Your task to perform on an android device: check the backup settings in the google photos Image 0: 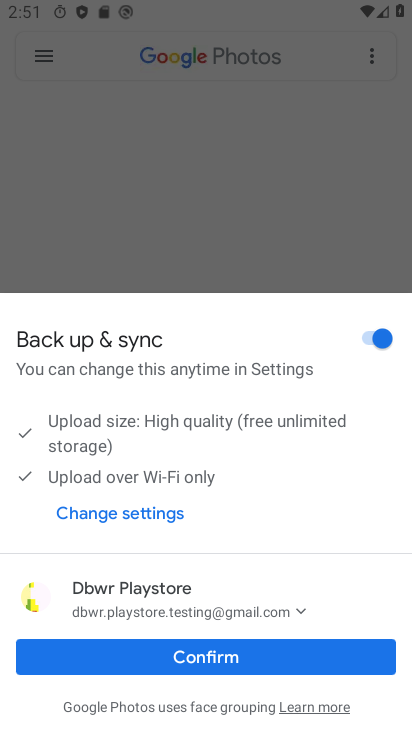
Step 0: click (207, 663)
Your task to perform on an android device: check the backup settings in the google photos Image 1: 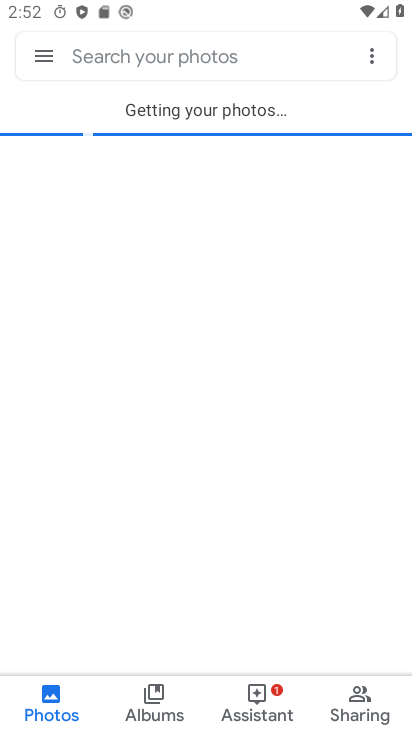
Step 1: click (44, 59)
Your task to perform on an android device: check the backup settings in the google photos Image 2: 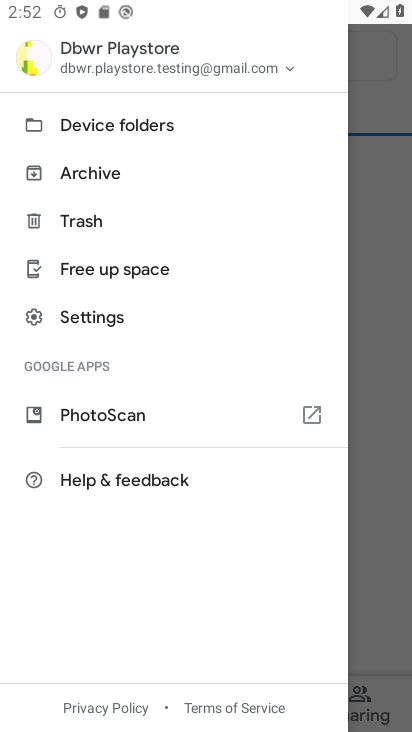
Step 2: click (163, 320)
Your task to perform on an android device: check the backup settings in the google photos Image 3: 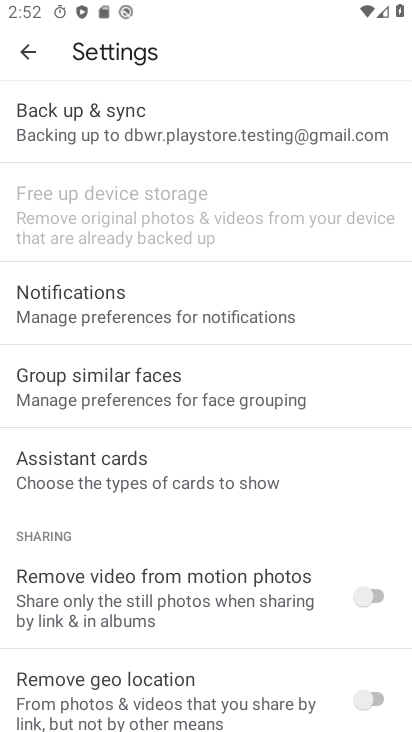
Step 3: click (150, 146)
Your task to perform on an android device: check the backup settings in the google photos Image 4: 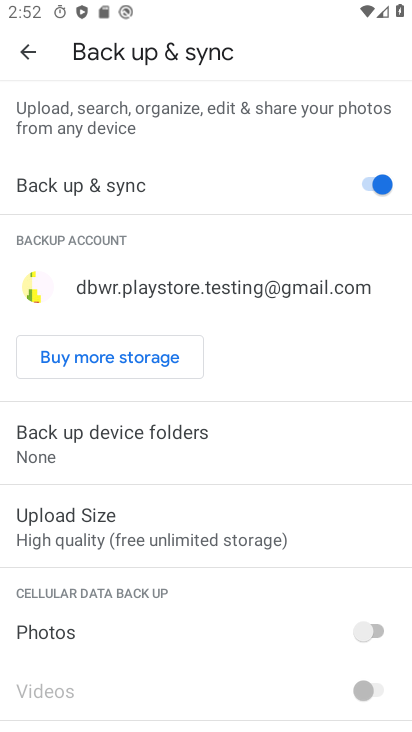
Step 4: task complete